Your task to perform on an android device: turn on the 24-hour format for clock Image 0: 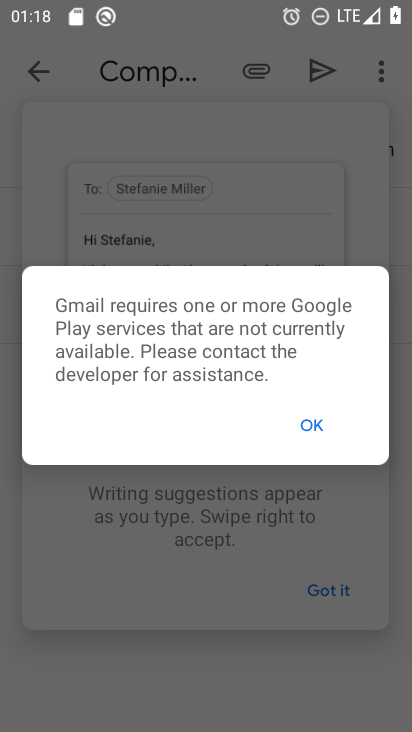
Step 0: click (316, 418)
Your task to perform on an android device: turn on the 24-hour format for clock Image 1: 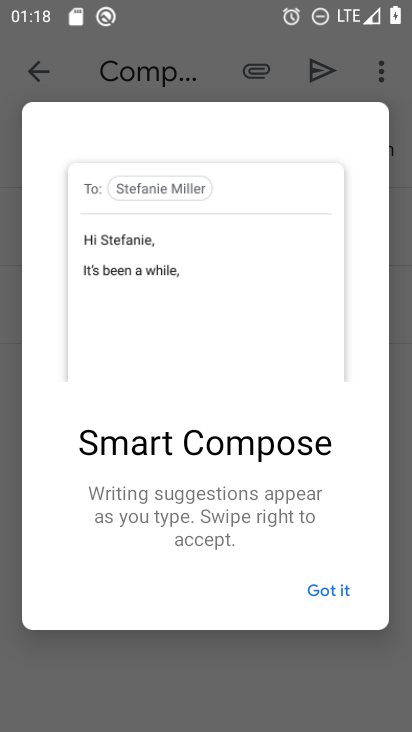
Step 1: press home button
Your task to perform on an android device: turn on the 24-hour format for clock Image 2: 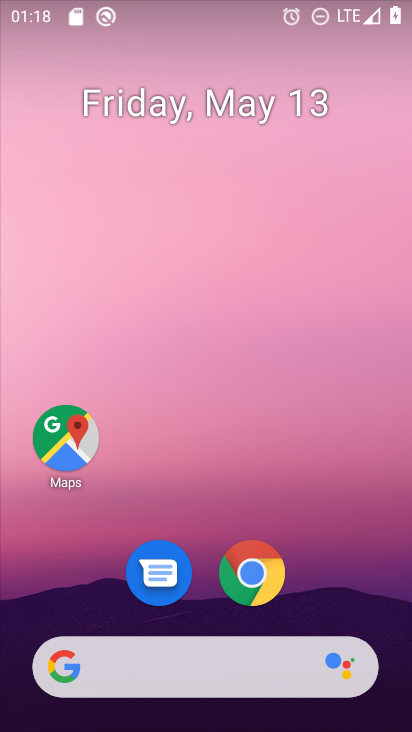
Step 2: drag from (217, 710) to (321, 2)
Your task to perform on an android device: turn on the 24-hour format for clock Image 3: 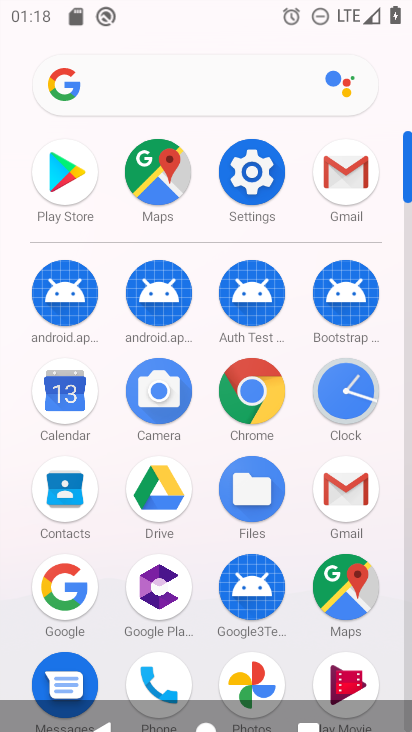
Step 3: click (256, 160)
Your task to perform on an android device: turn on the 24-hour format for clock Image 4: 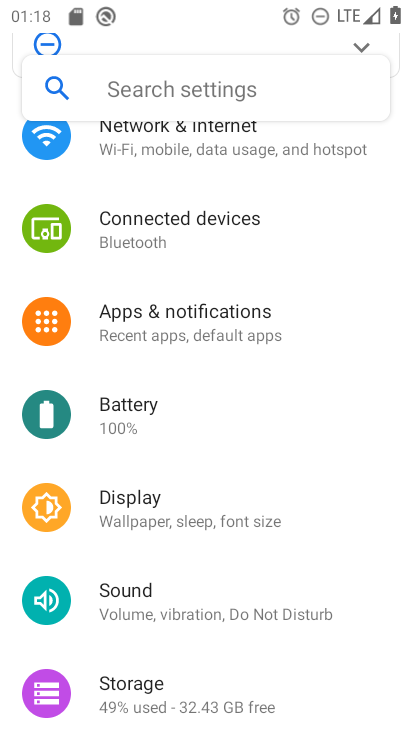
Step 4: press home button
Your task to perform on an android device: turn on the 24-hour format for clock Image 5: 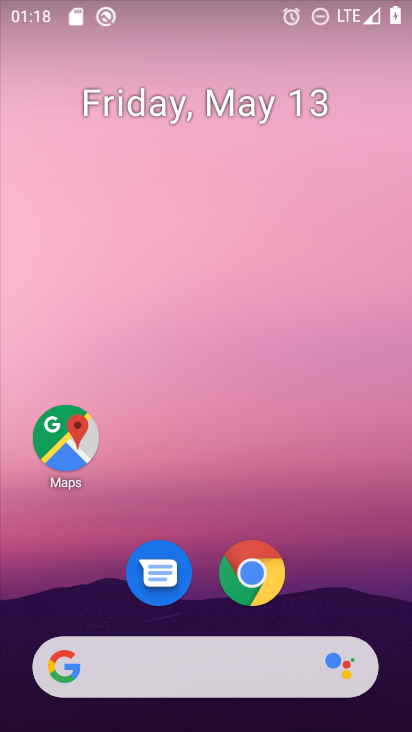
Step 5: drag from (239, 699) to (262, 162)
Your task to perform on an android device: turn on the 24-hour format for clock Image 6: 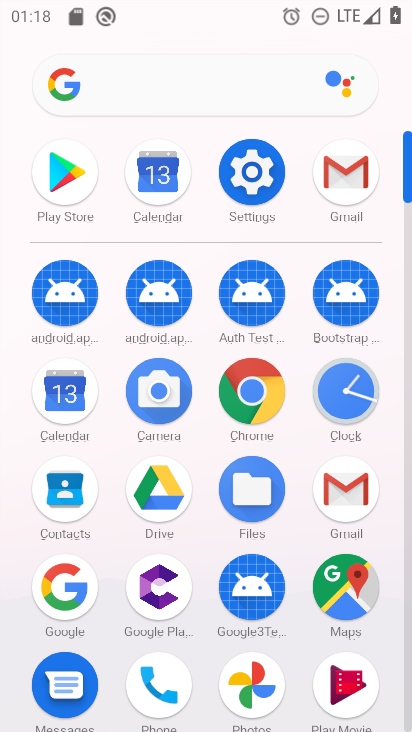
Step 6: click (345, 391)
Your task to perform on an android device: turn on the 24-hour format for clock Image 7: 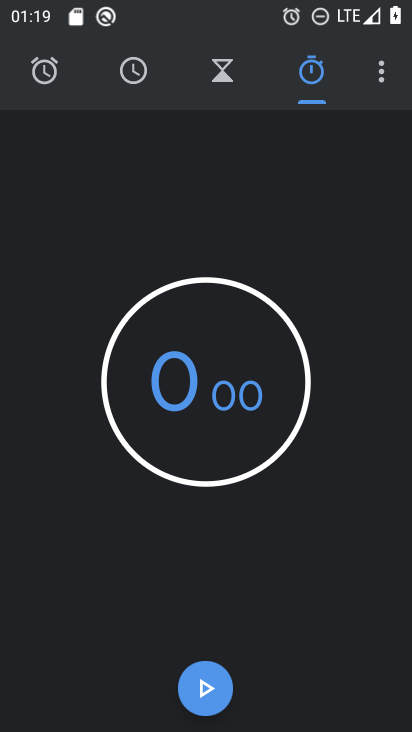
Step 7: click (386, 75)
Your task to perform on an android device: turn on the 24-hour format for clock Image 8: 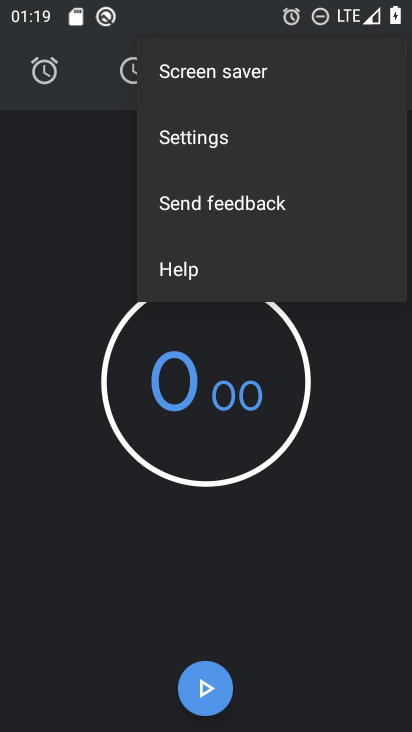
Step 8: click (256, 144)
Your task to perform on an android device: turn on the 24-hour format for clock Image 9: 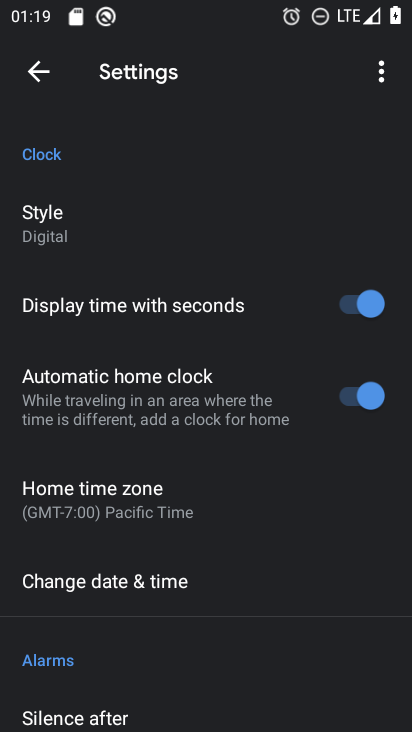
Step 9: click (199, 576)
Your task to perform on an android device: turn on the 24-hour format for clock Image 10: 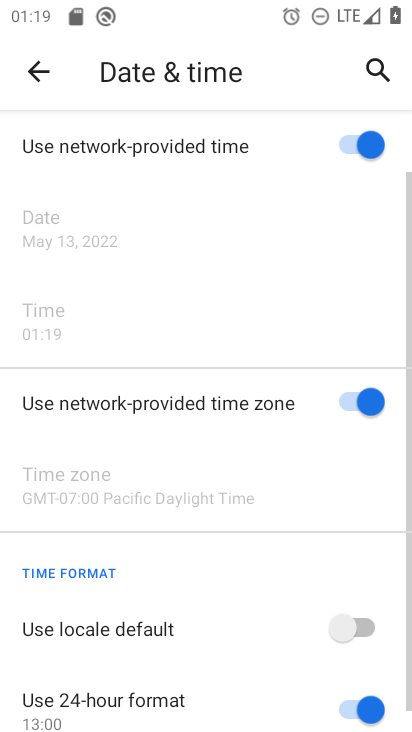
Step 10: task complete